Your task to perform on an android device: What is the recent news? Image 0: 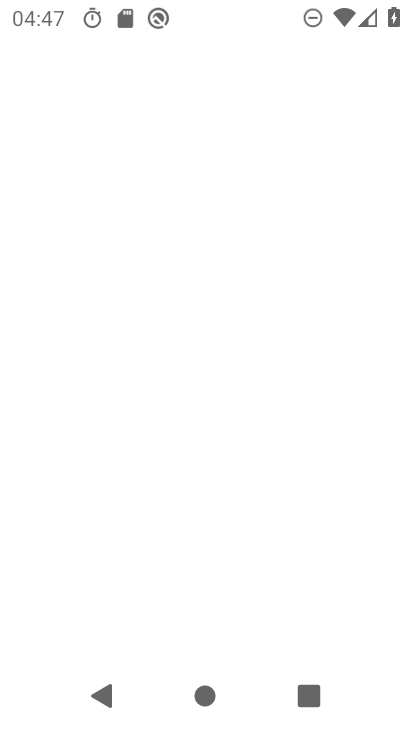
Step 0: drag from (195, 388) to (274, 99)
Your task to perform on an android device: What is the recent news? Image 1: 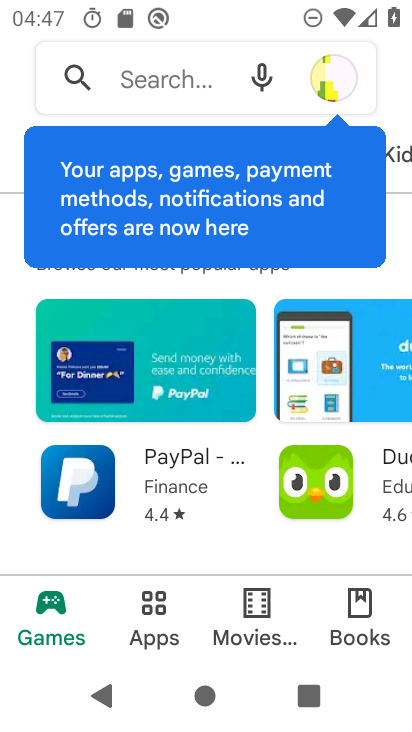
Step 1: task complete